Your task to perform on an android device: search for starred emails in the gmail app Image 0: 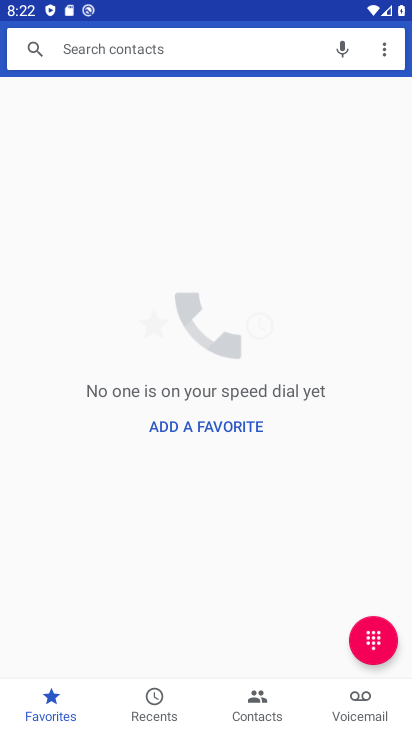
Step 0: press home button
Your task to perform on an android device: search for starred emails in the gmail app Image 1: 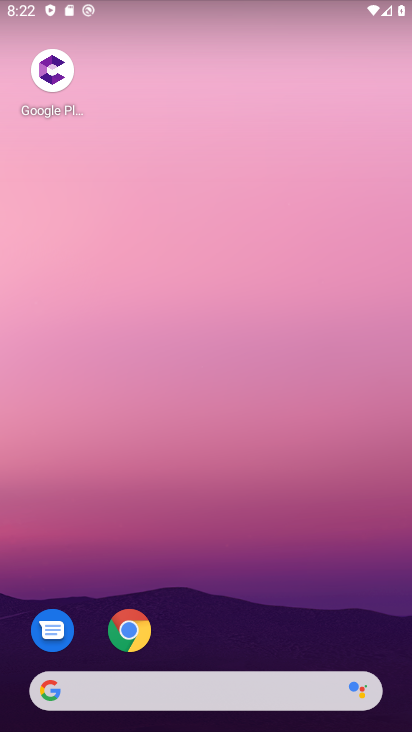
Step 1: drag from (220, 631) to (313, 22)
Your task to perform on an android device: search for starred emails in the gmail app Image 2: 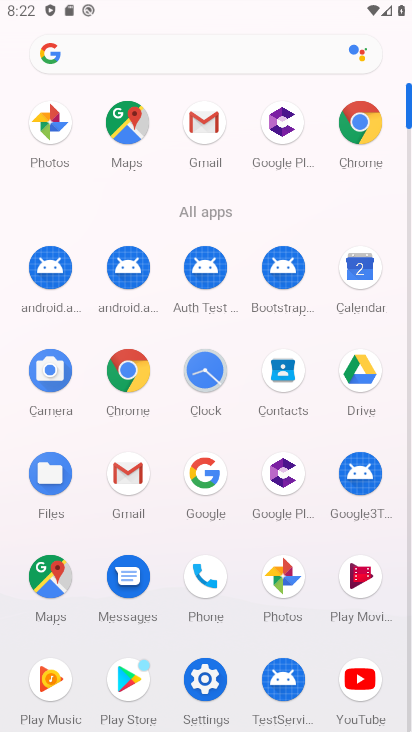
Step 2: click (126, 490)
Your task to perform on an android device: search for starred emails in the gmail app Image 3: 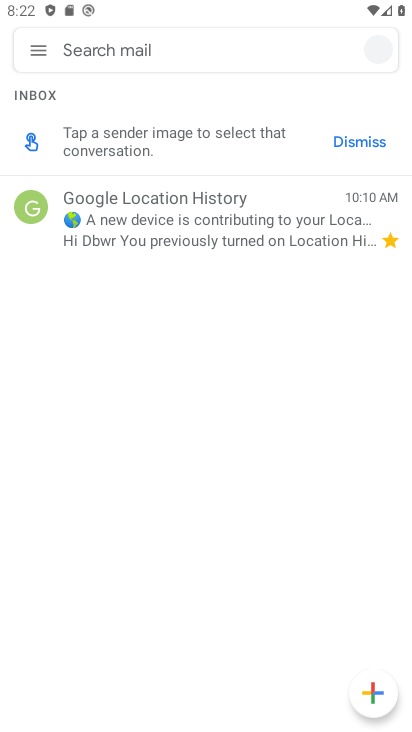
Step 3: click (126, 490)
Your task to perform on an android device: search for starred emails in the gmail app Image 4: 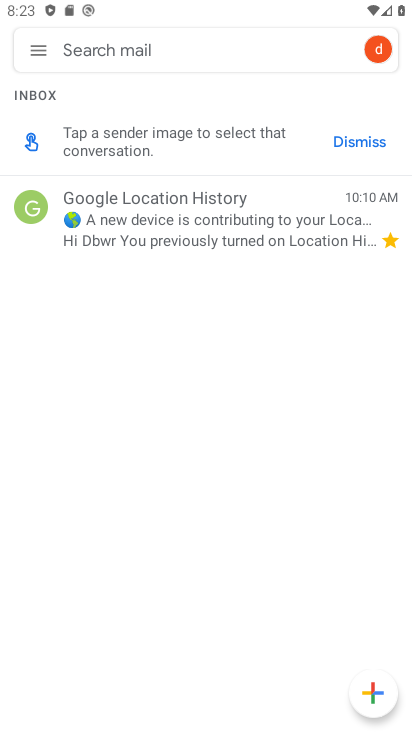
Step 4: click (36, 48)
Your task to perform on an android device: search for starred emails in the gmail app Image 5: 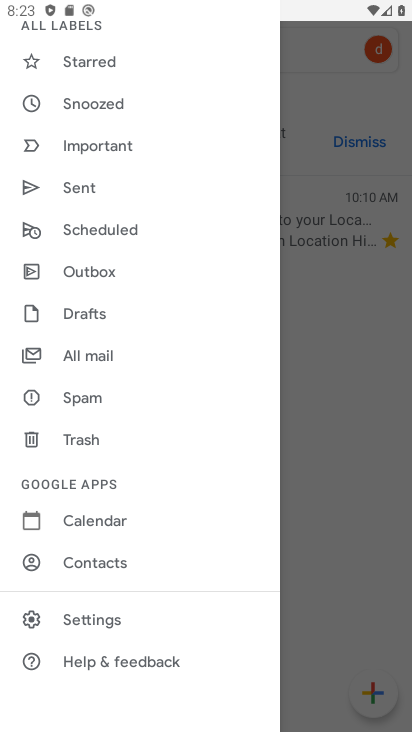
Step 5: click (103, 68)
Your task to perform on an android device: search for starred emails in the gmail app Image 6: 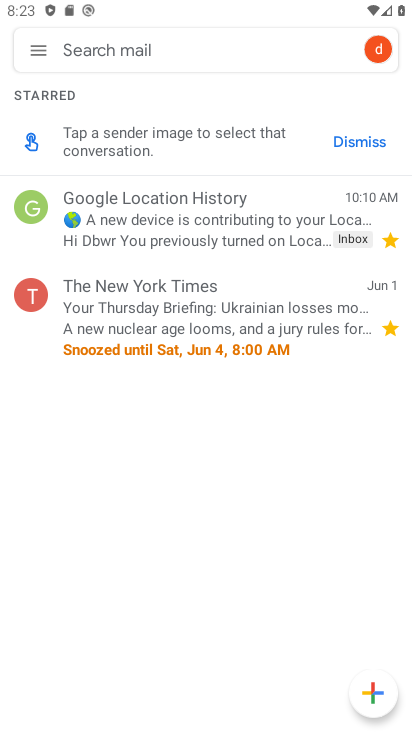
Step 6: task complete